Your task to perform on an android device: Add logitech g933 to the cart on walmart, then select checkout. Image 0: 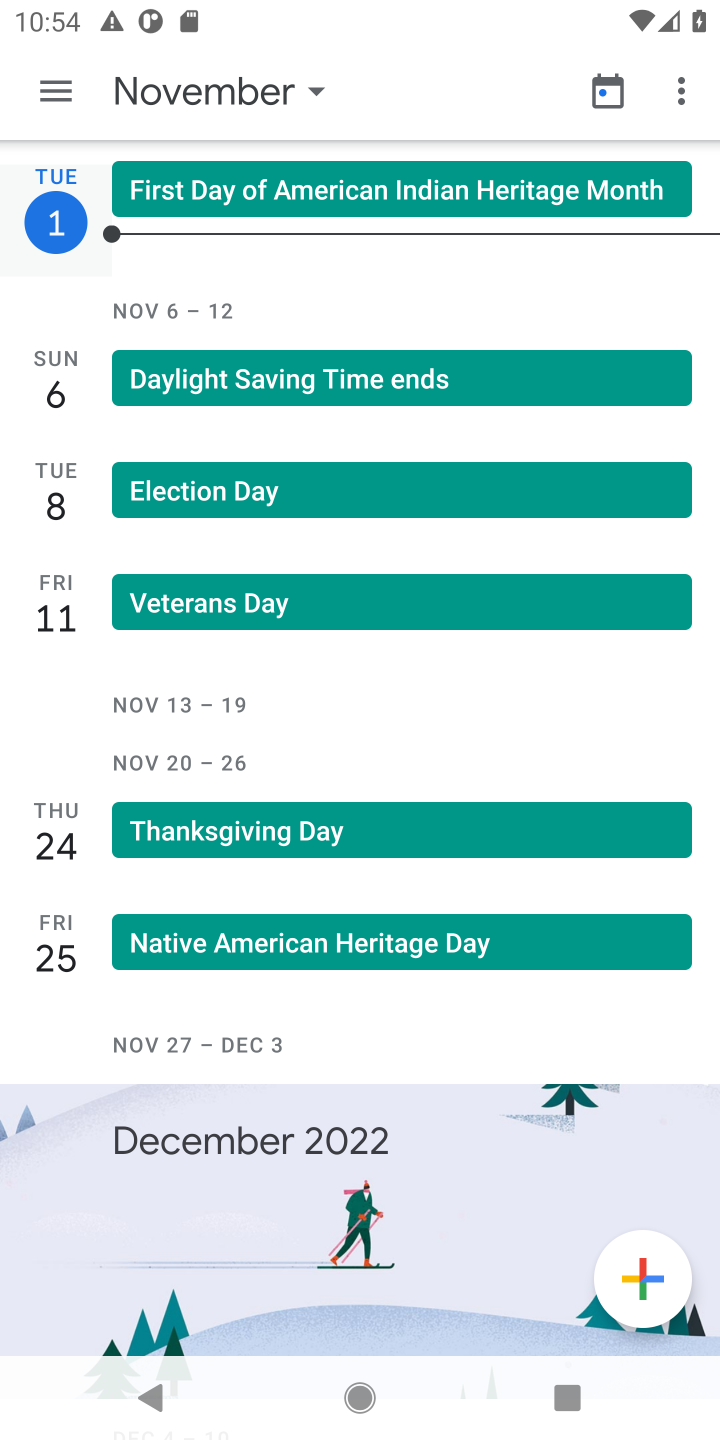
Step 0: press home button
Your task to perform on an android device: Add logitech g933 to the cart on walmart, then select checkout. Image 1: 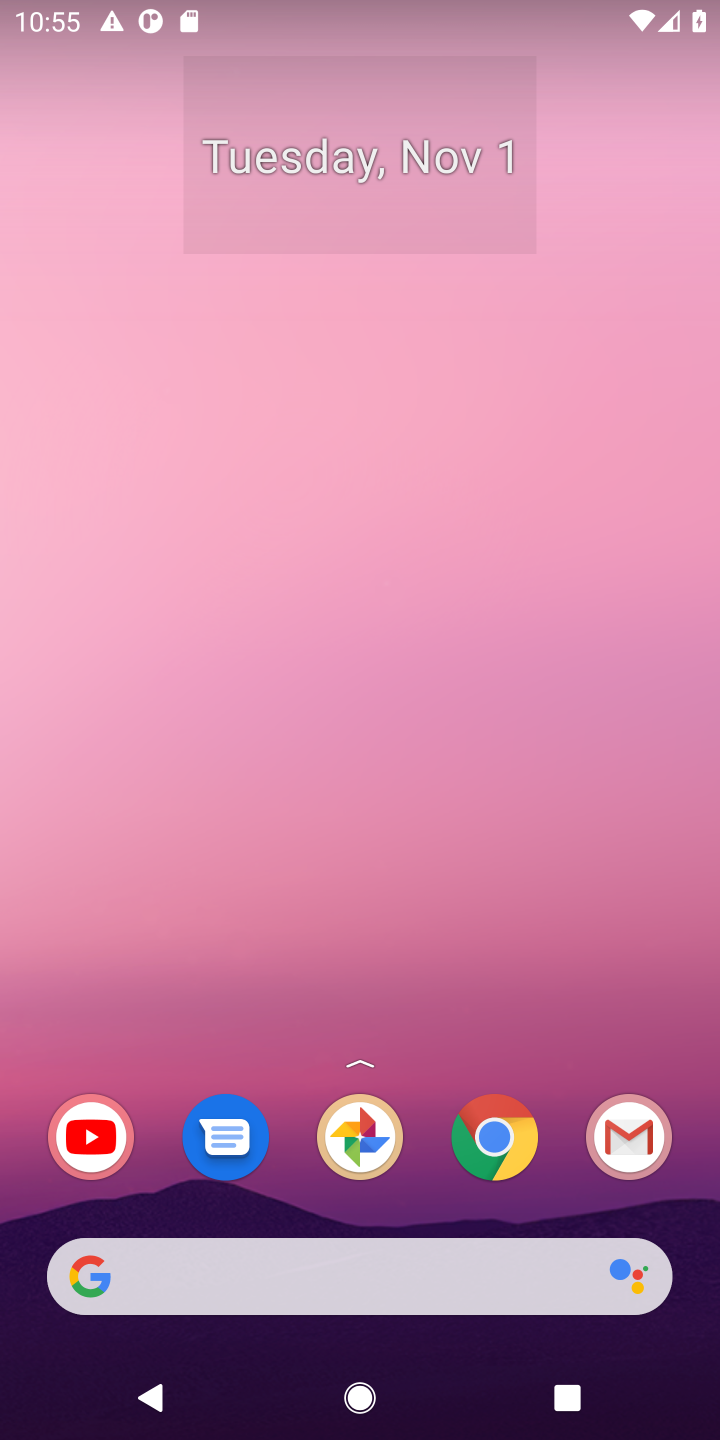
Step 1: click (364, 1273)
Your task to perform on an android device: Add logitech g933 to the cart on walmart, then select checkout. Image 2: 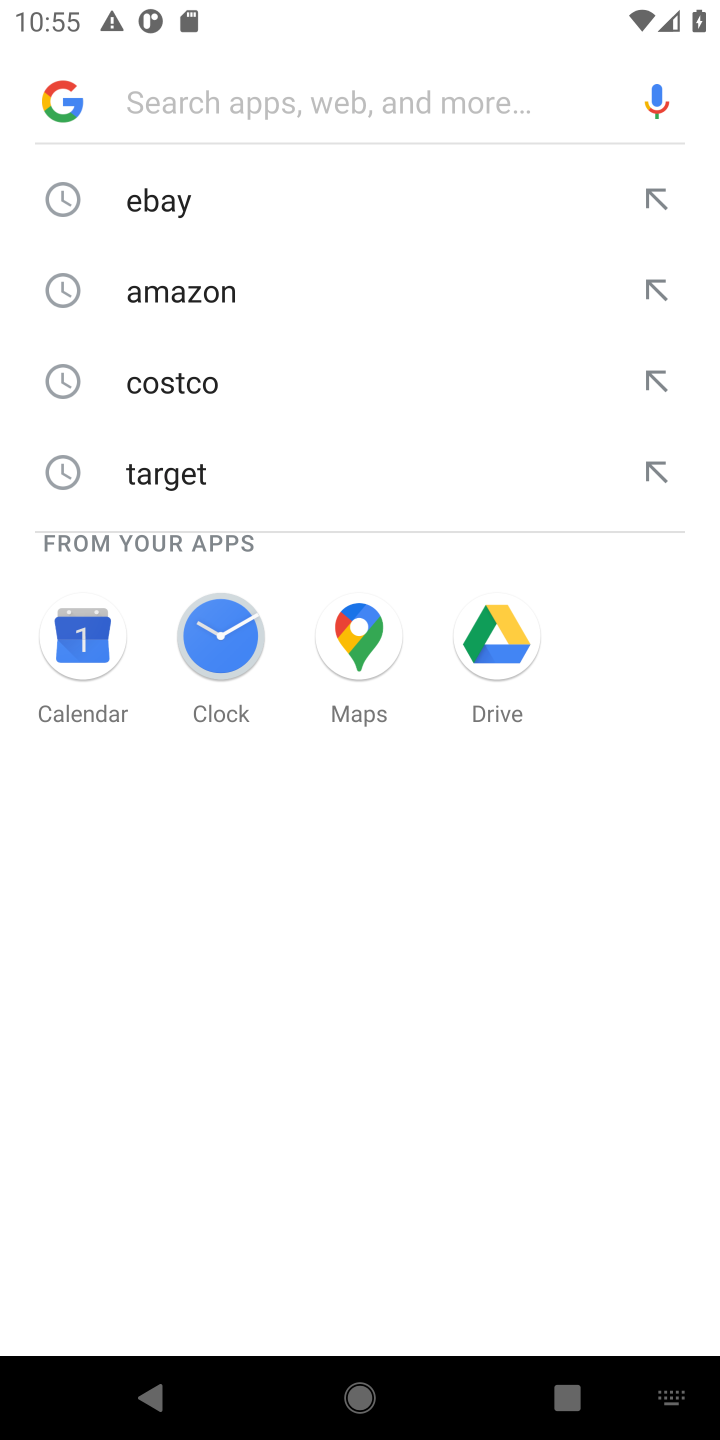
Step 2: type "walmart"
Your task to perform on an android device: Add logitech g933 to the cart on walmart, then select checkout. Image 3: 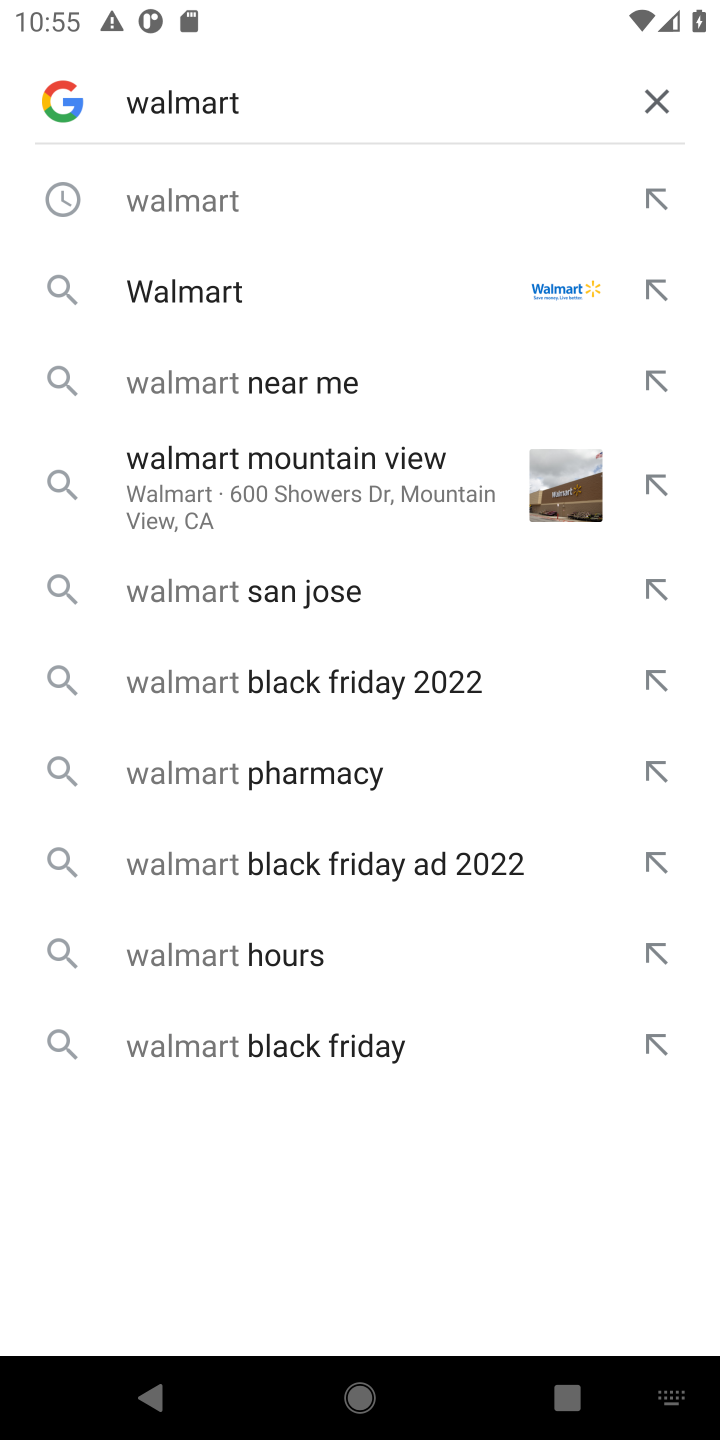
Step 3: click (409, 296)
Your task to perform on an android device: Add logitech g933 to the cart on walmart, then select checkout. Image 4: 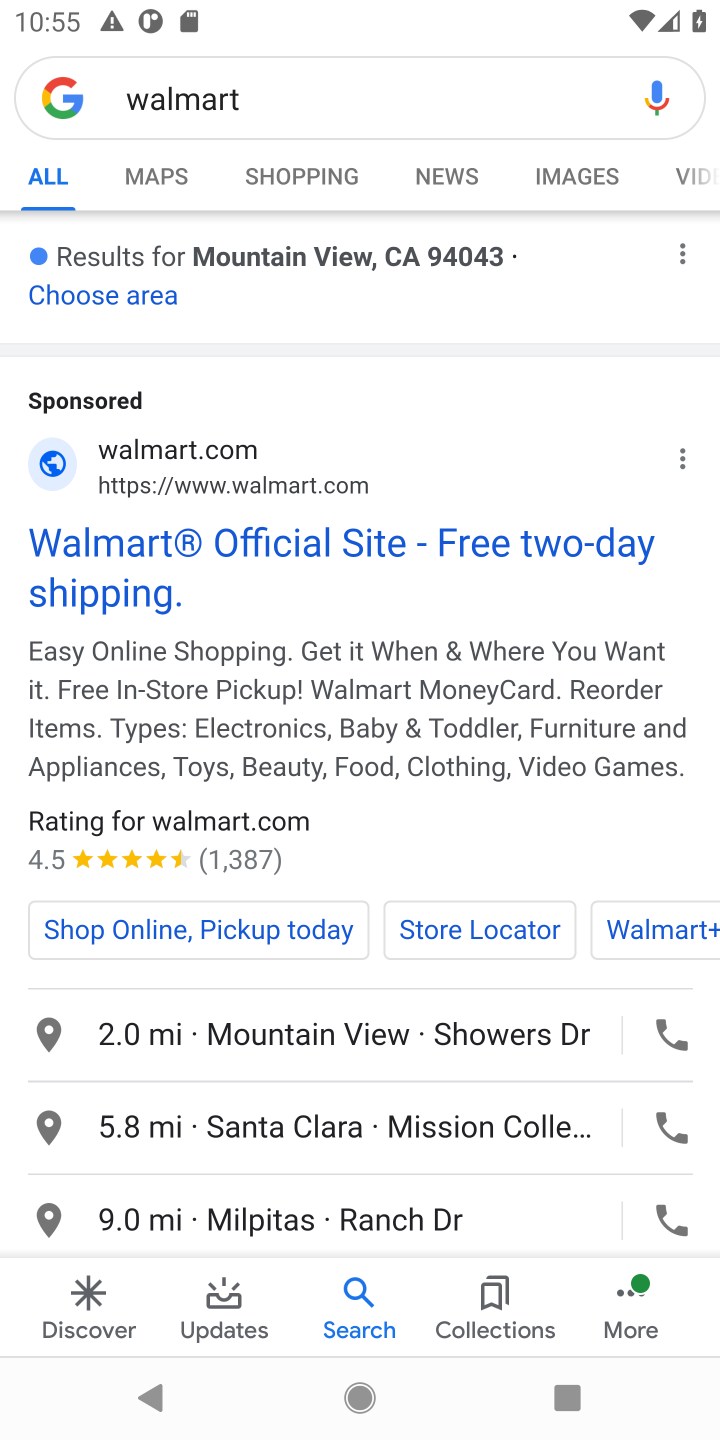
Step 4: click (279, 547)
Your task to perform on an android device: Add logitech g933 to the cart on walmart, then select checkout. Image 5: 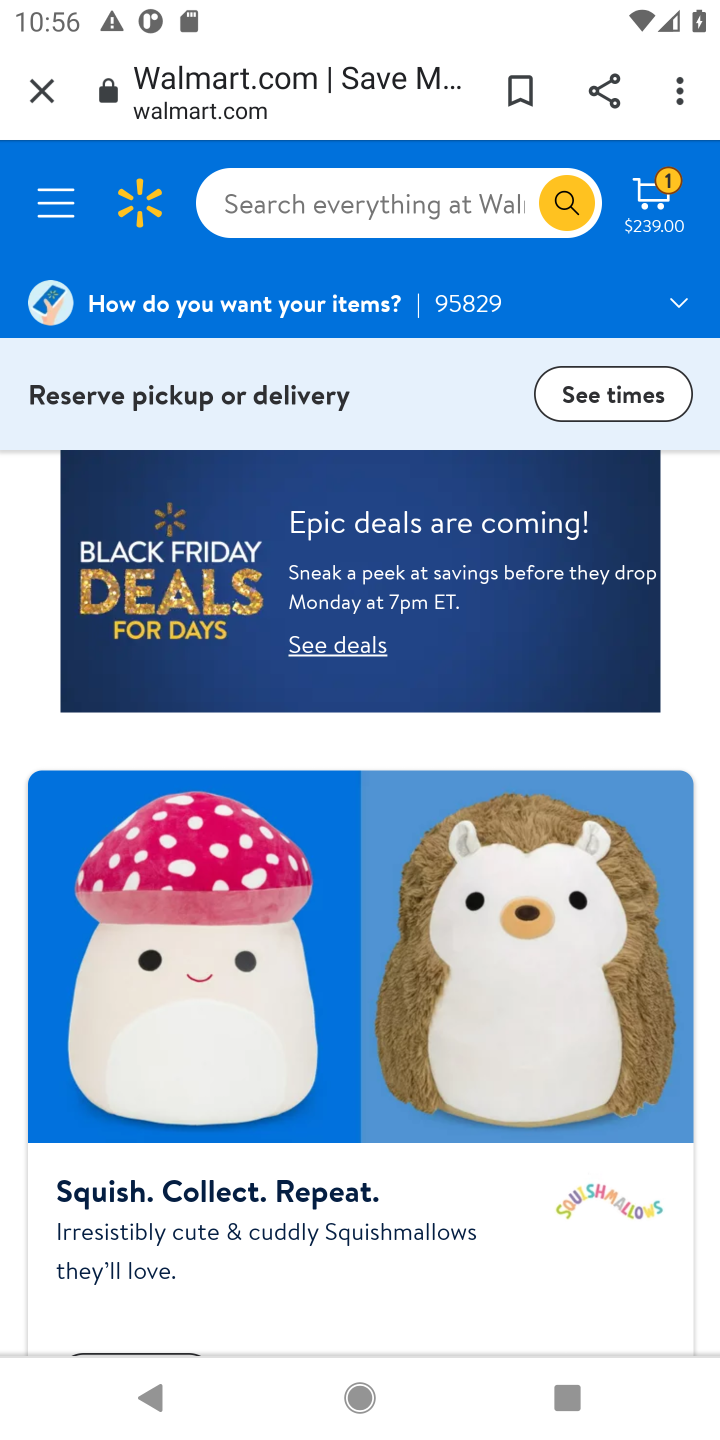
Step 5: click (343, 200)
Your task to perform on an android device: Add logitech g933 to the cart on walmart, then select checkout. Image 6: 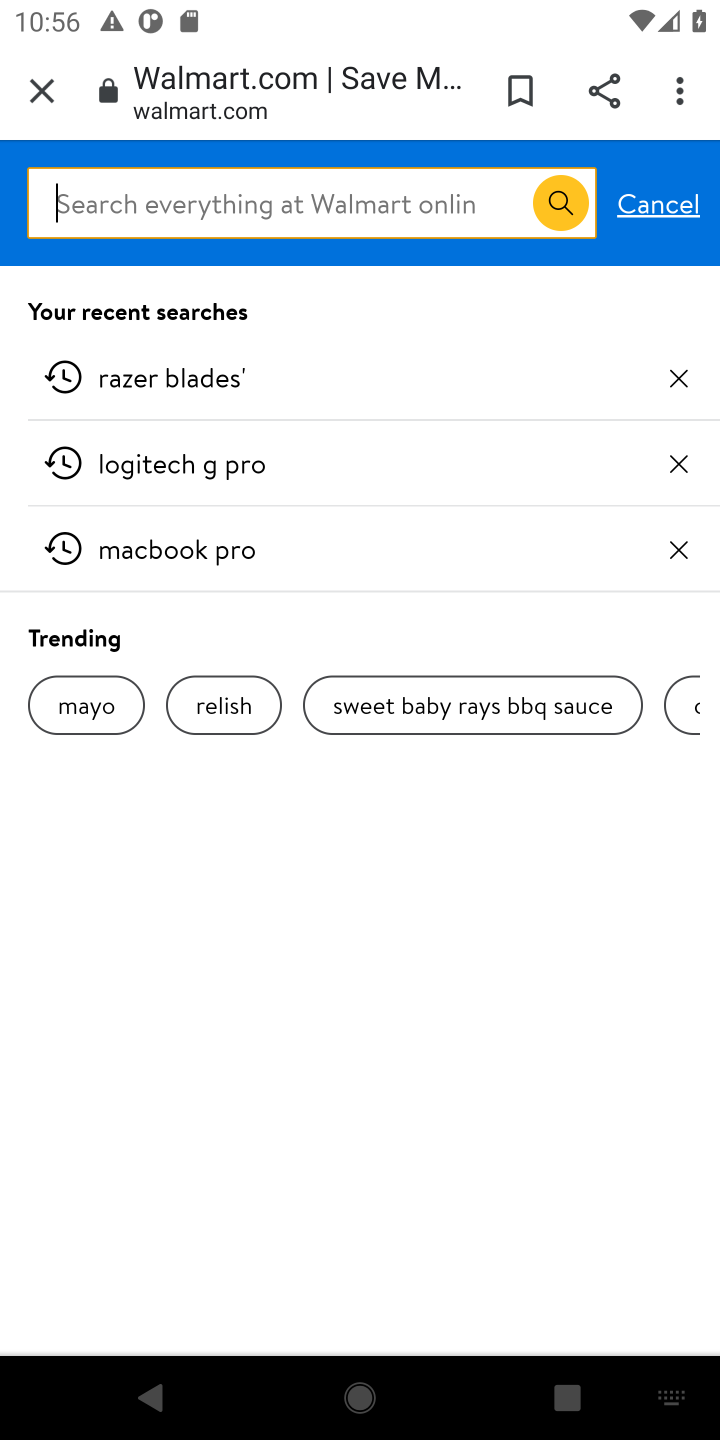
Step 6: type " logitech g933"
Your task to perform on an android device: Add logitech g933 to the cart on walmart, then select checkout. Image 7: 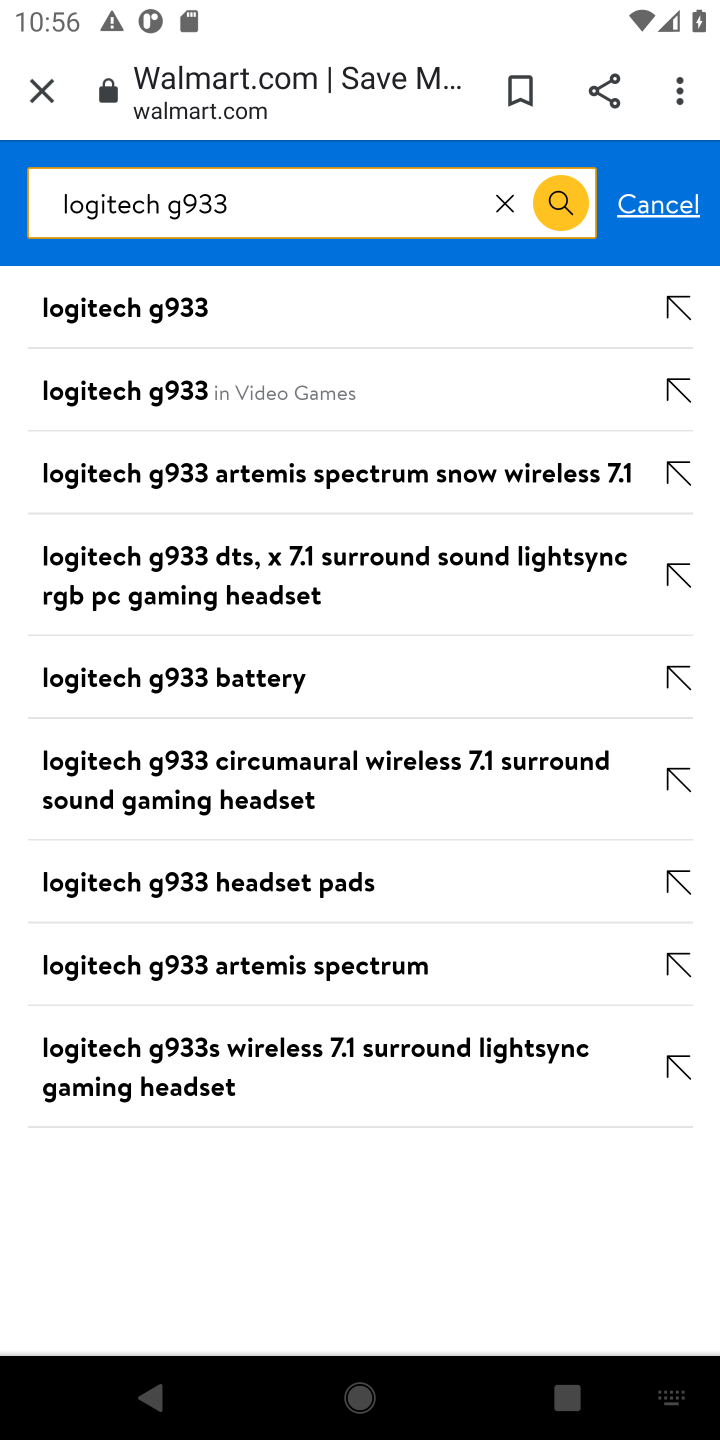
Step 7: click (161, 299)
Your task to perform on an android device: Add logitech g933 to the cart on walmart, then select checkout. Image 8: 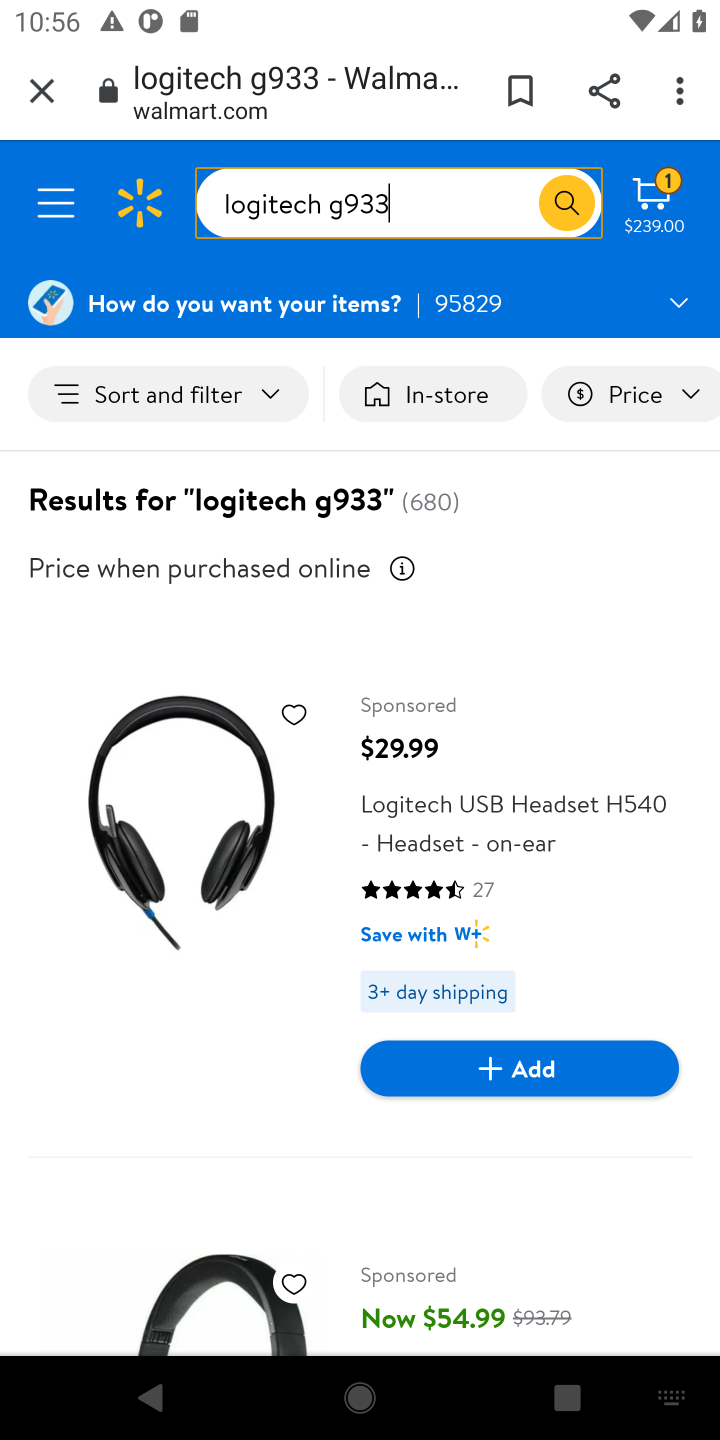
Step 8: click (529, 1071)
Your task to perform on an android device: Add logitech g933 to the cart on walmart, then select checkout. Image 9: 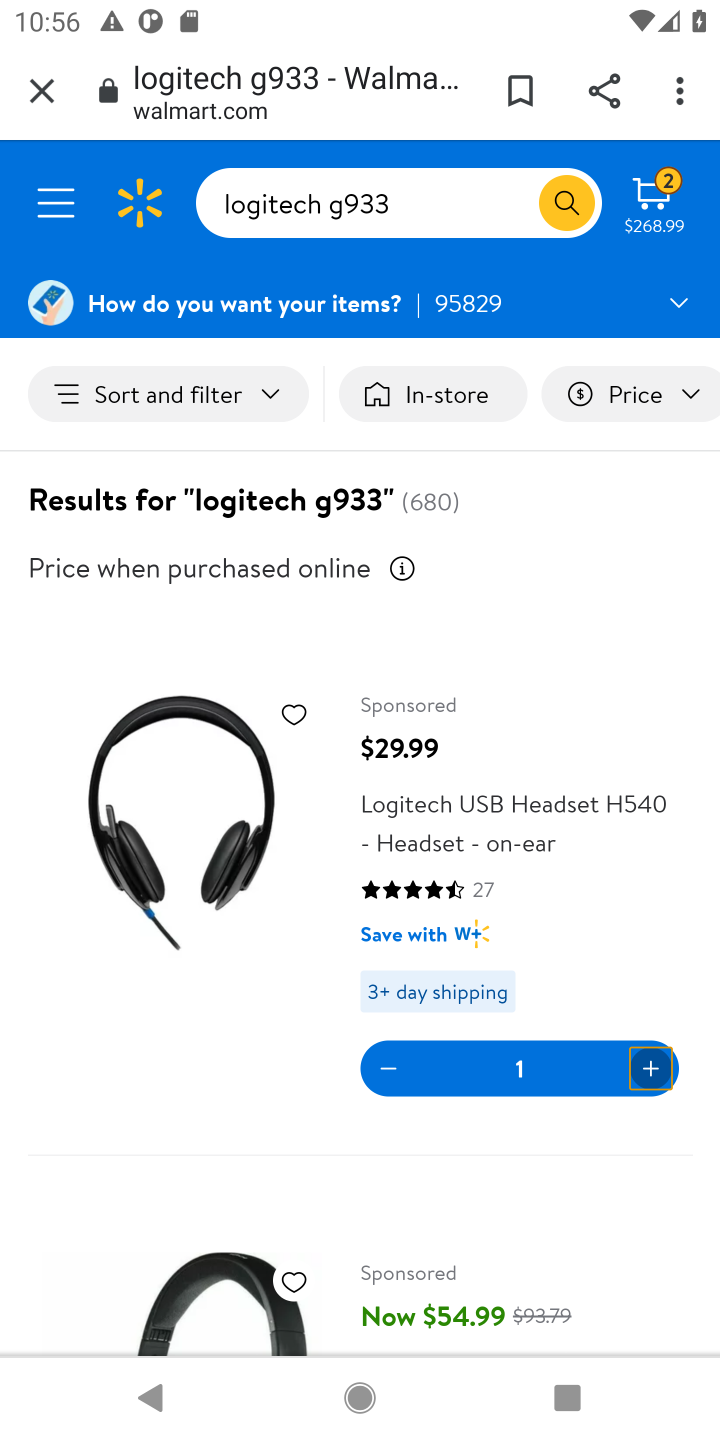
Step 9: click (640, 209)
Your task to perform on an android device: Add logitech g933 to the cart on walmart, then select checkout. Image 10: 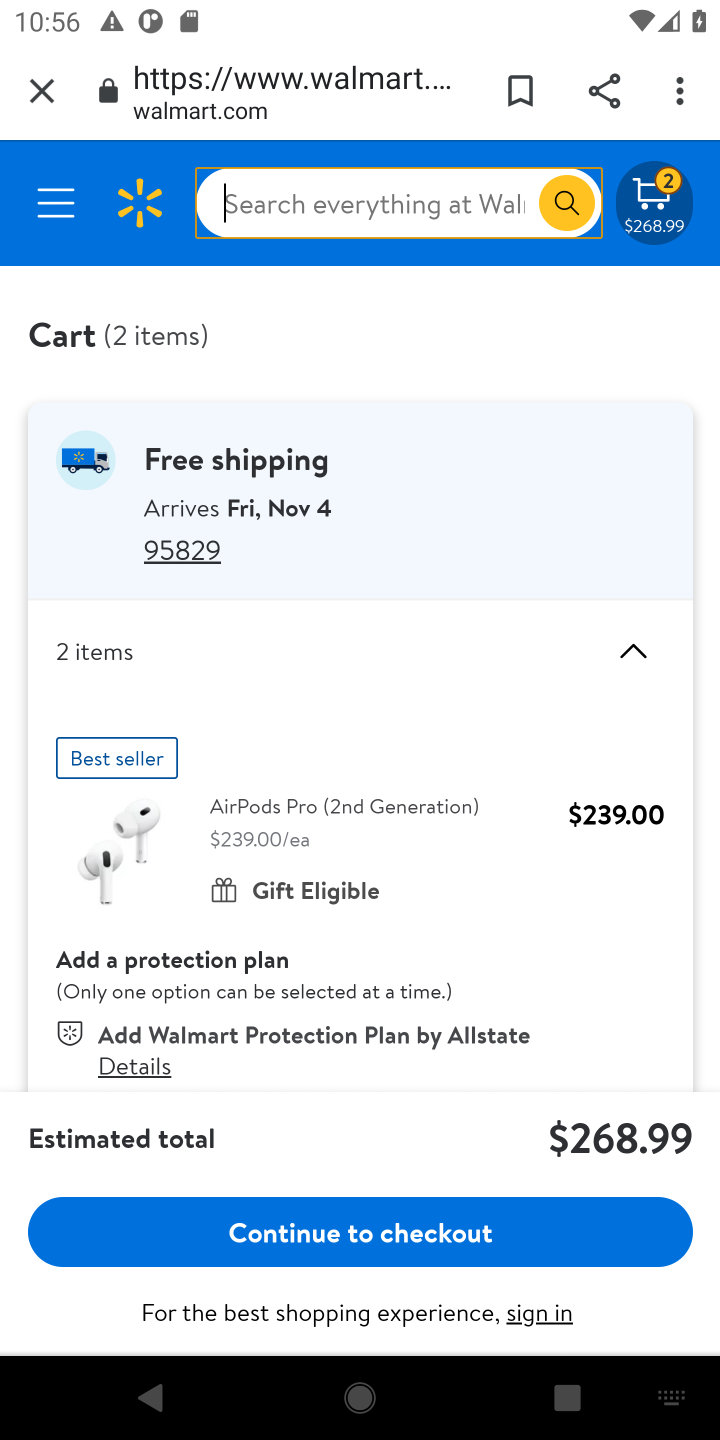
Step 10: click (366, 1240)
Your task to perform on an android device: Add logitech g933 to the cart on walmart, then select checkout. Image 11: 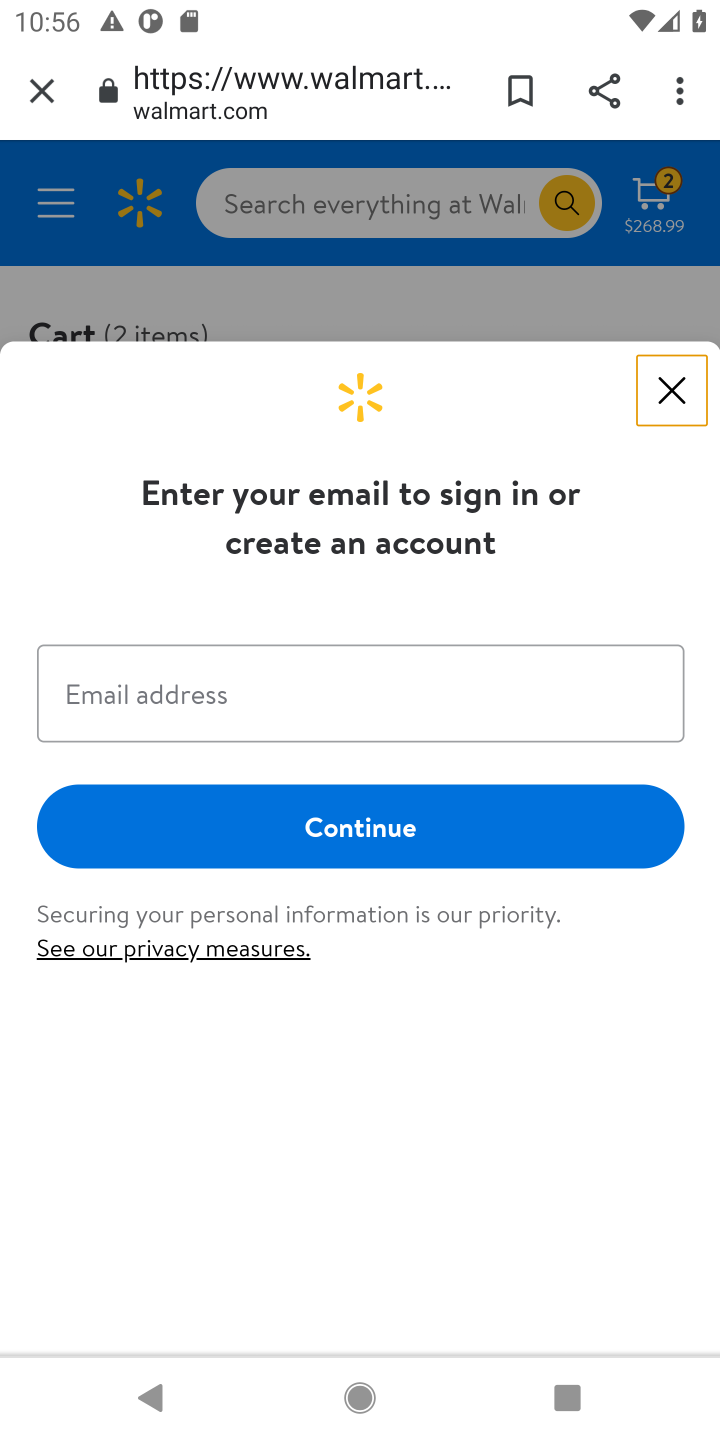
Step 11: task complete